Your task to perform on an android device: Do I have any events today? Image 0: 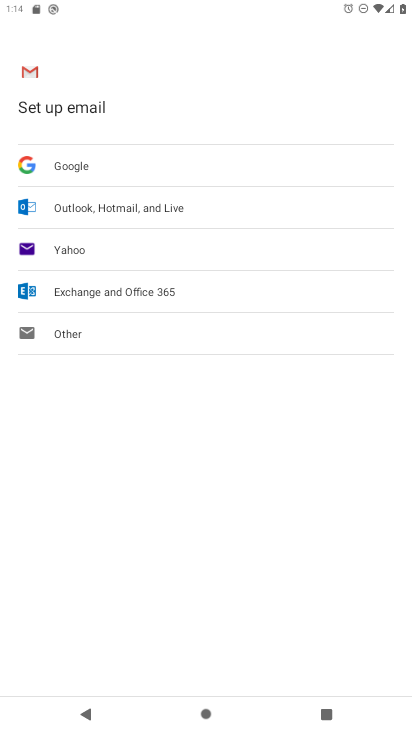
Step 0: press home button
Your task to perform on an android device: Do I have any events today? Image 1: 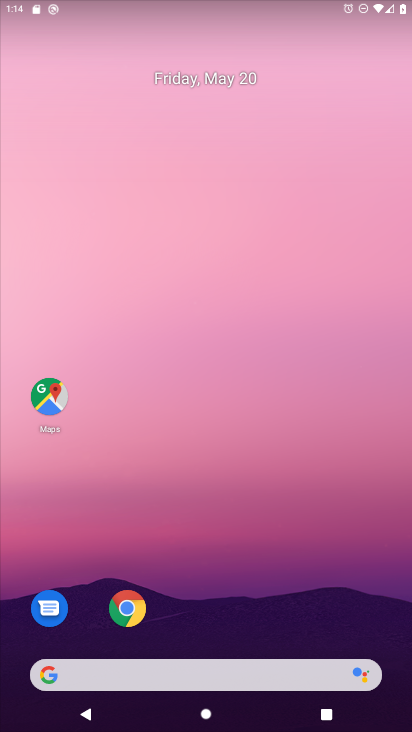
Step 1: drag from (346, 547) to (334, 83)
Your task to perform on an android device: Do I have any events today? Image 2: 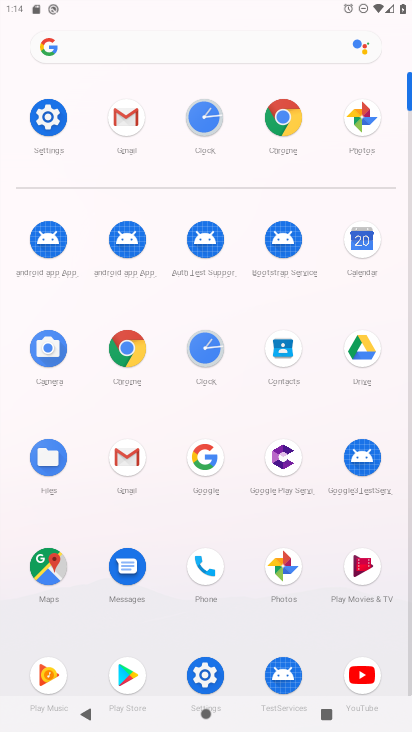
Step 2: click (365, 262)
Your task to perform on an android device: Do I have any events today? Image 3: 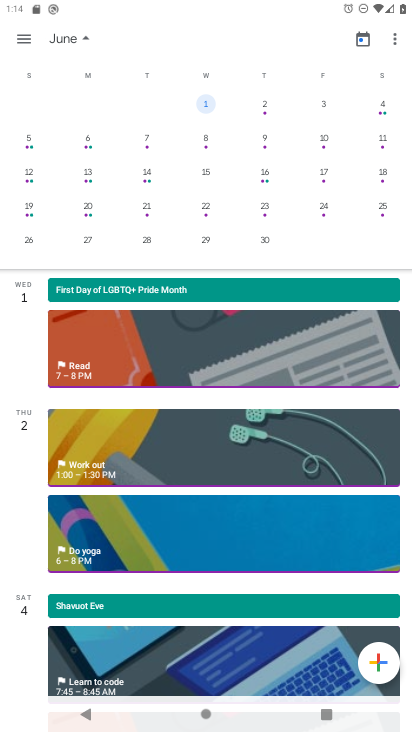
Step 3: drag from (65, 113) to (357, 135)
Your task to perform on an android device: Do I have any events today? Image 4: 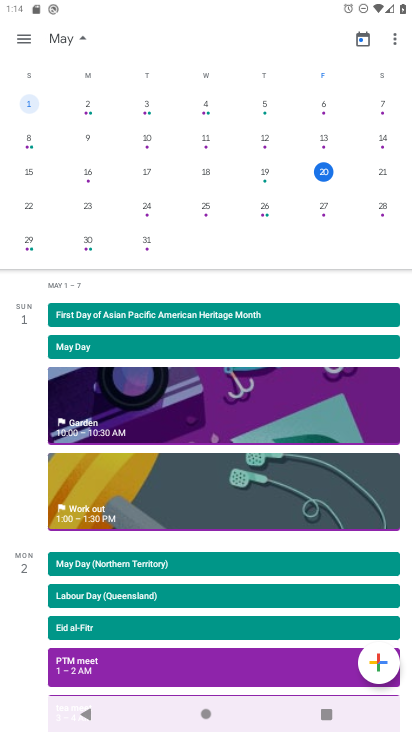
Step 4: click (82, 33)
Your task to perform on an android device: Do I have any events today? Image 5: 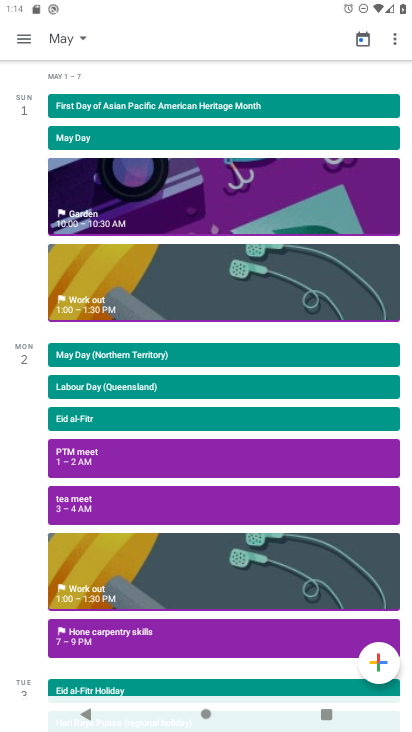
Step 5: task complete